Your task to perform on an android device: What's the price of the Vizio TV? Image 0: 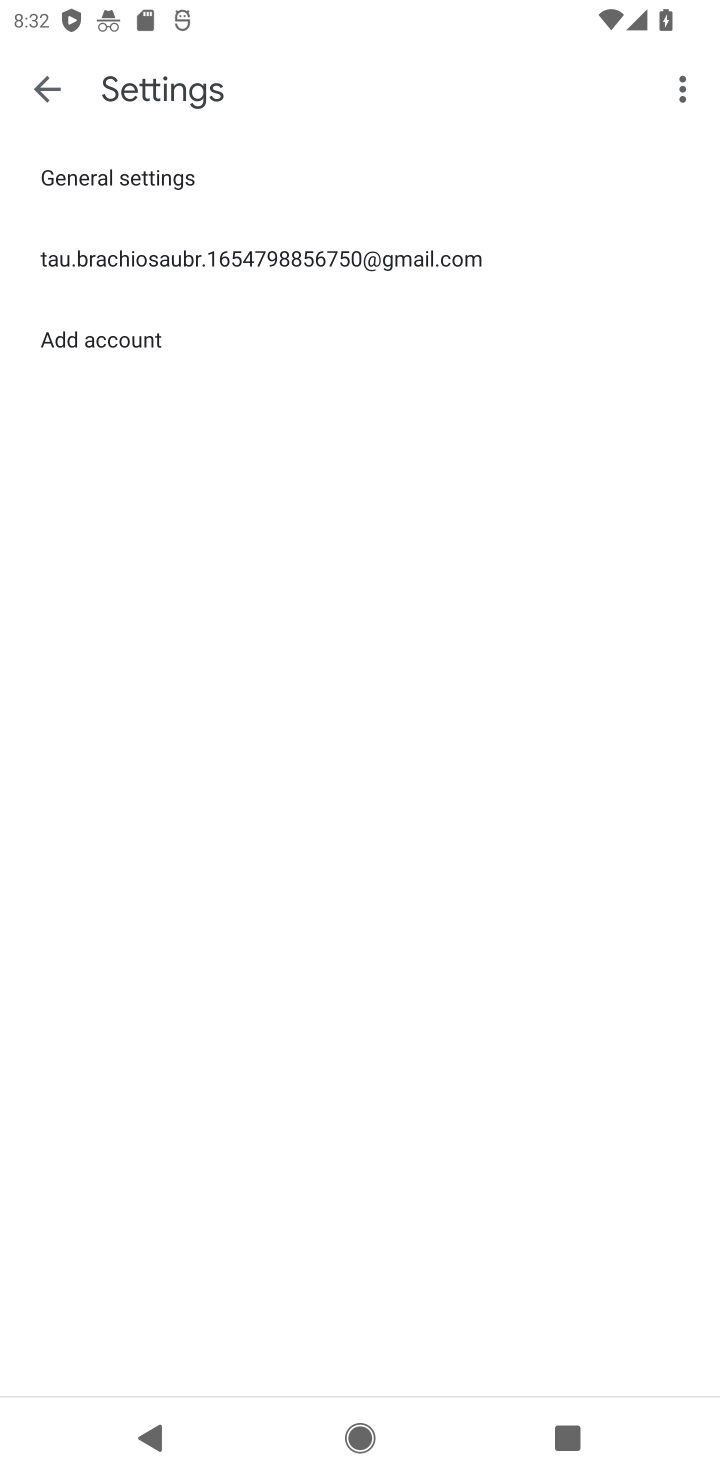
Step 0: press home button
Your task to perform on an android device: What's the price of the Vizio TV? Image 1: 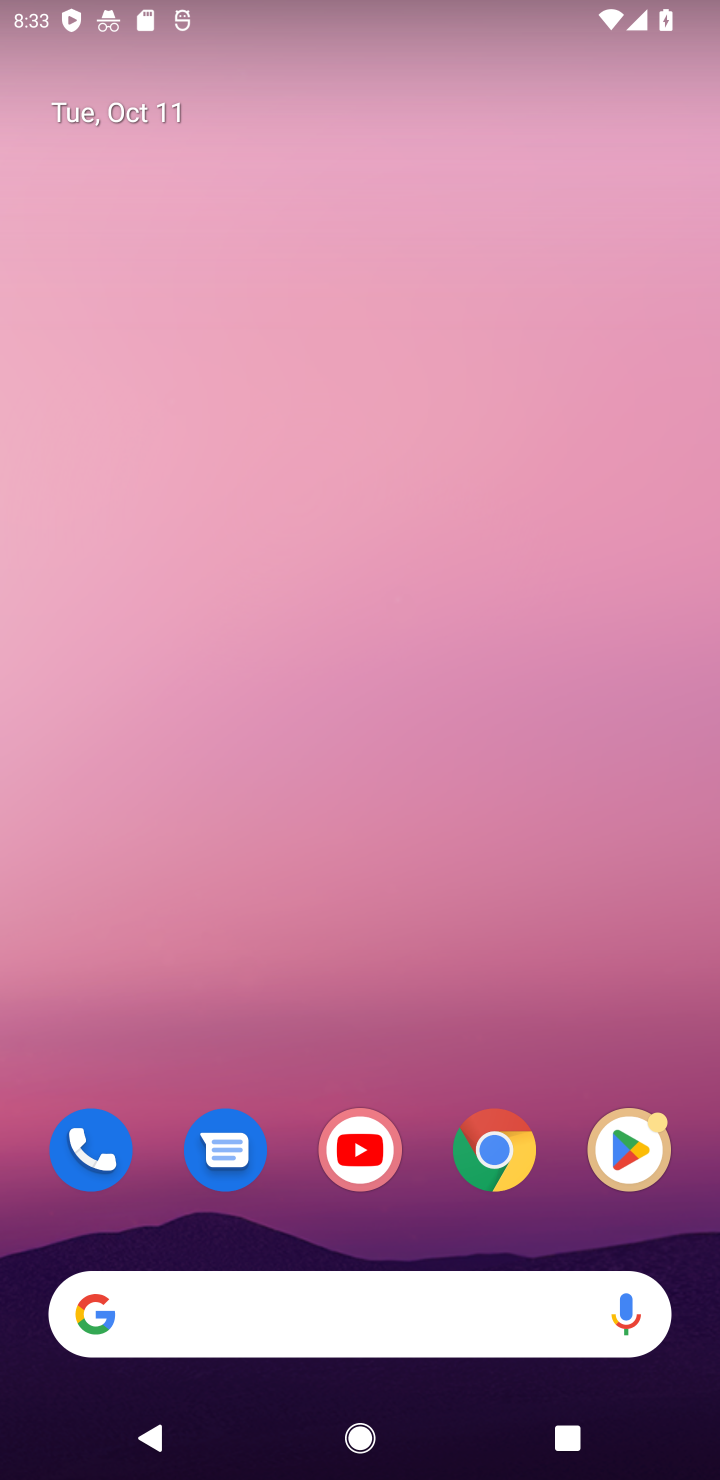
Step 1: click (487, 1163)
Your task to perform on an android device: What's the price of the Vizio TV? Image 2: 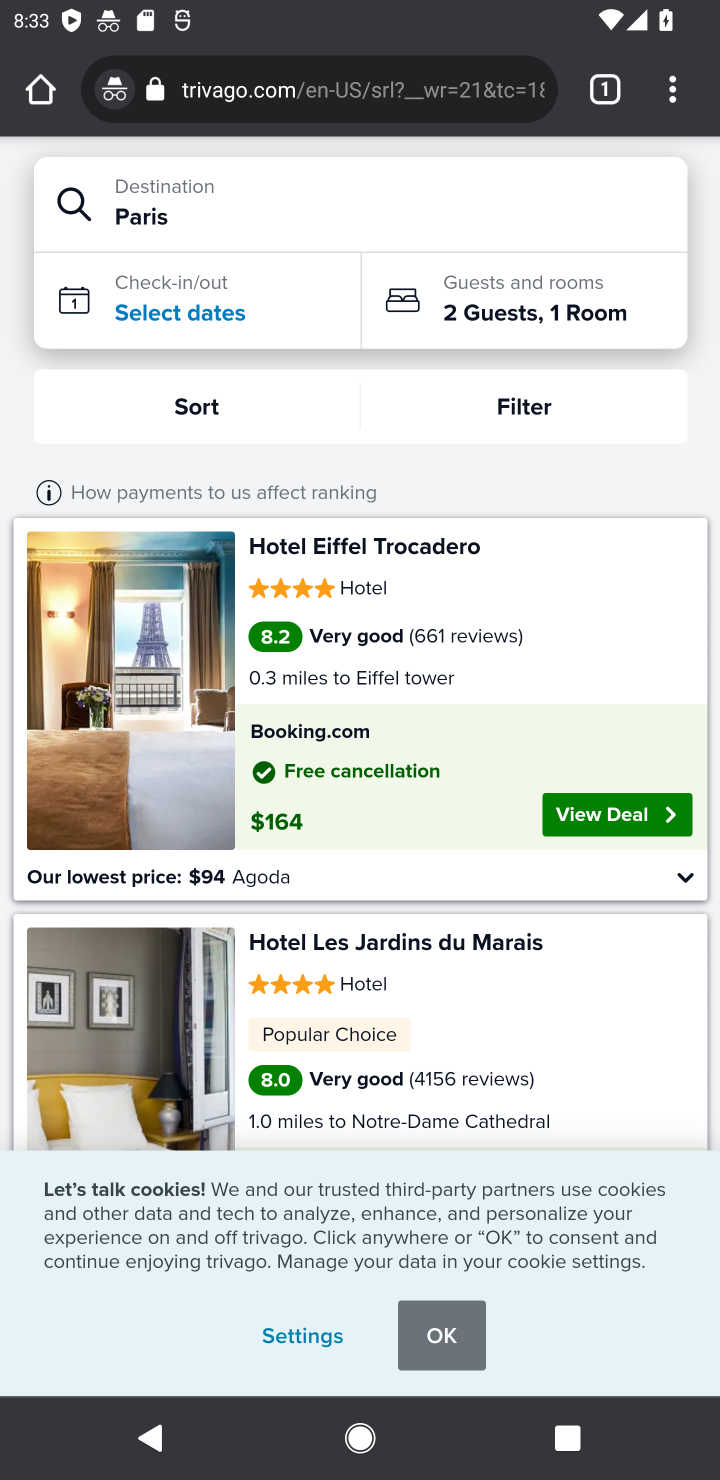
Step 2: click (293, 85)
Your task to perform on an android device: What's the price of the Vizio TV? Image 3: 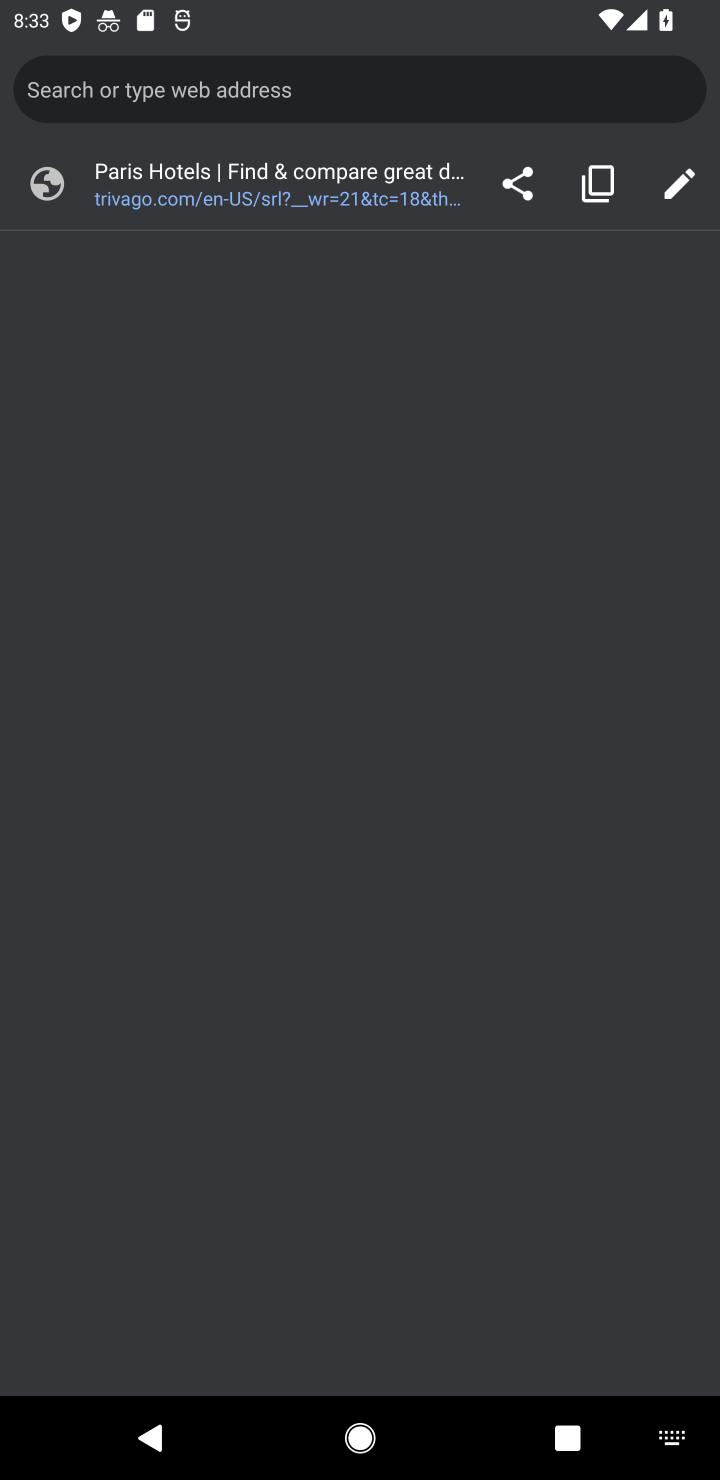
Step 3: type "price of the Vizio TV"
Your task to perform on an android device: What's the price of the Vizio TV? Image 4: 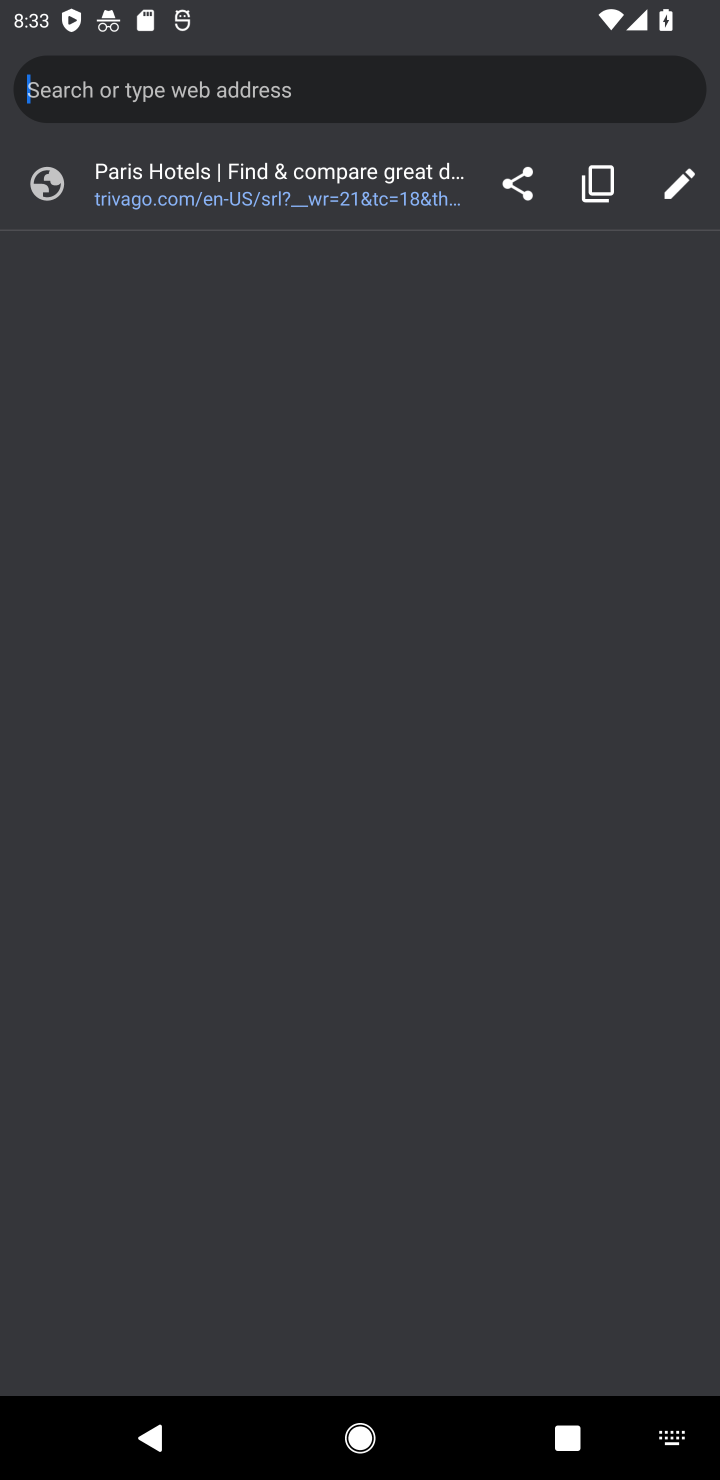
Step 4: click (85, 96)
Your task to perform on an android device: What's the price of the Vizio TV? Image 5: 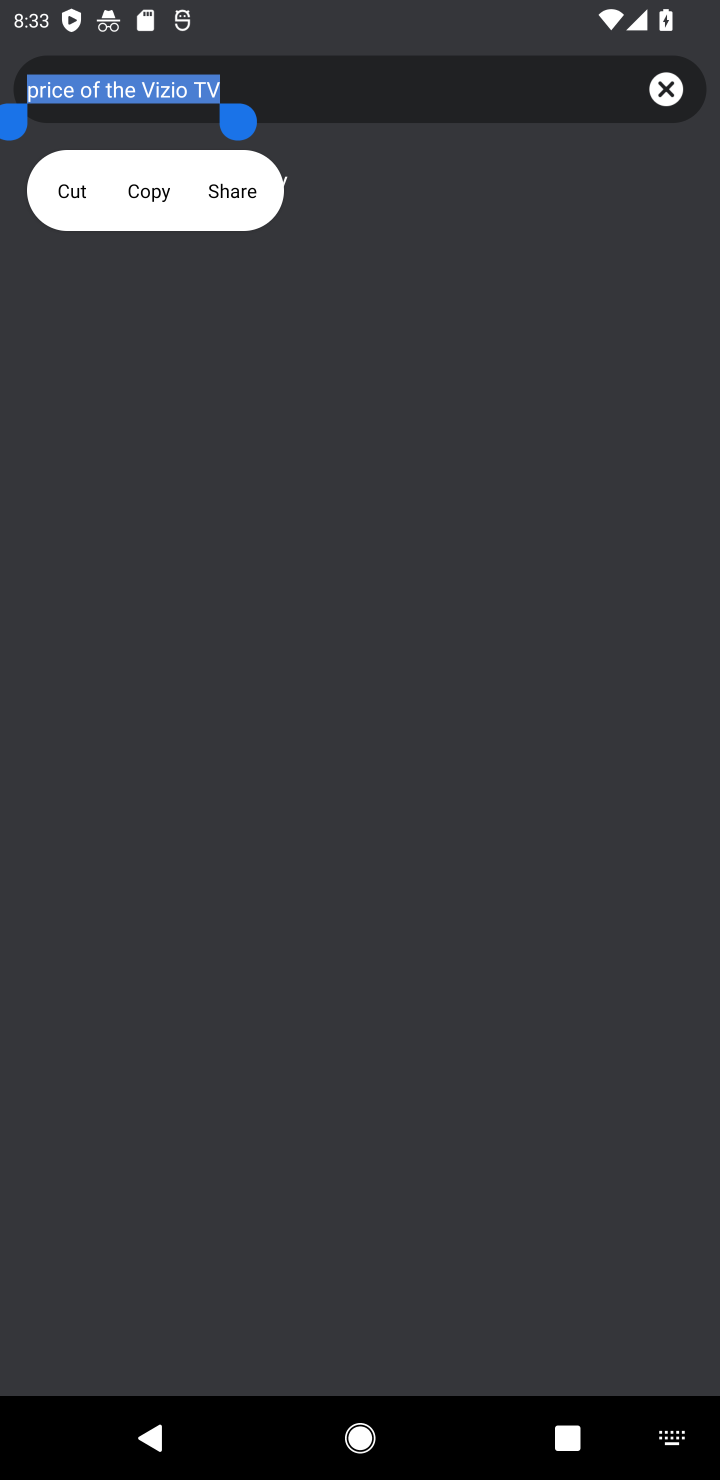
Step 5: click (407, 260)
Your task to perform on an android device: What's the price of the Vizio TV? Image 6: 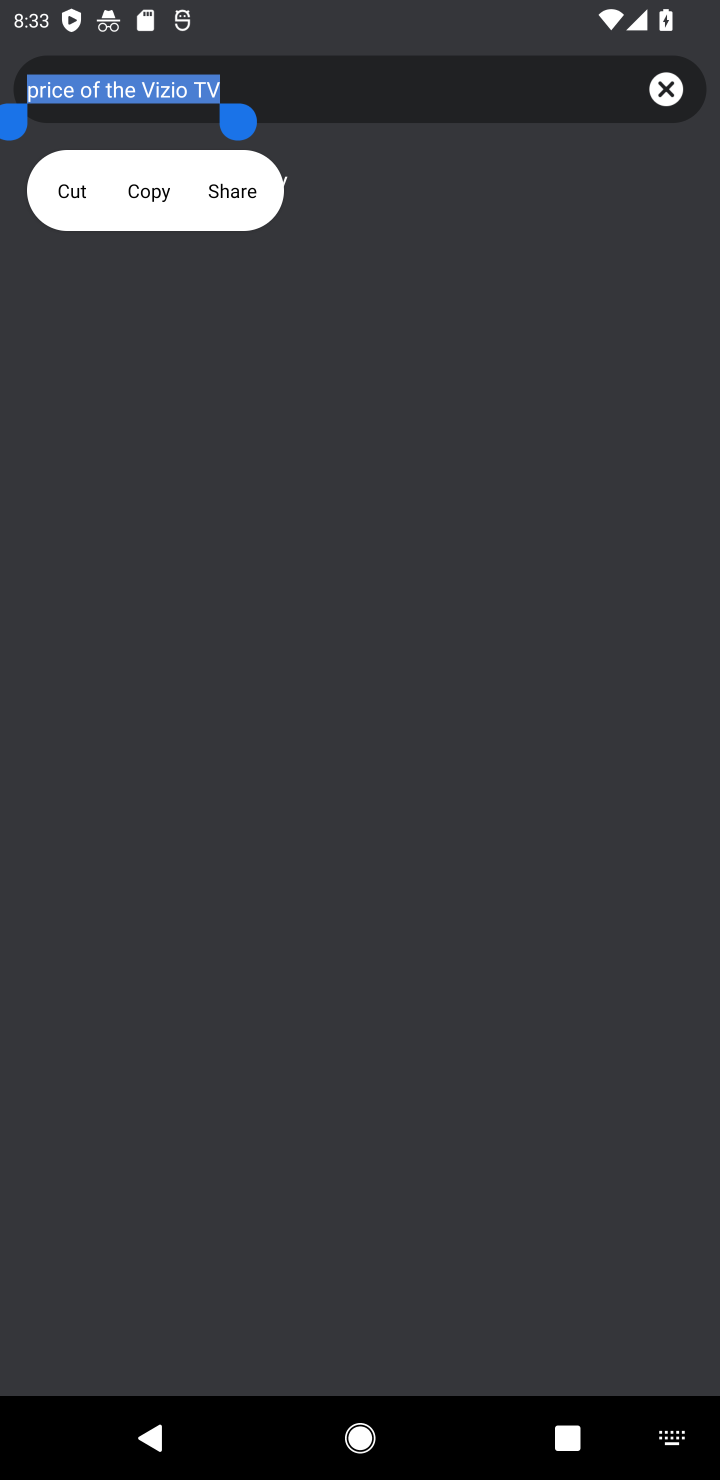
Step 6: click (365, 104)
Your task to perform on an android device: What's the price of the Vizio TV? Image 7: 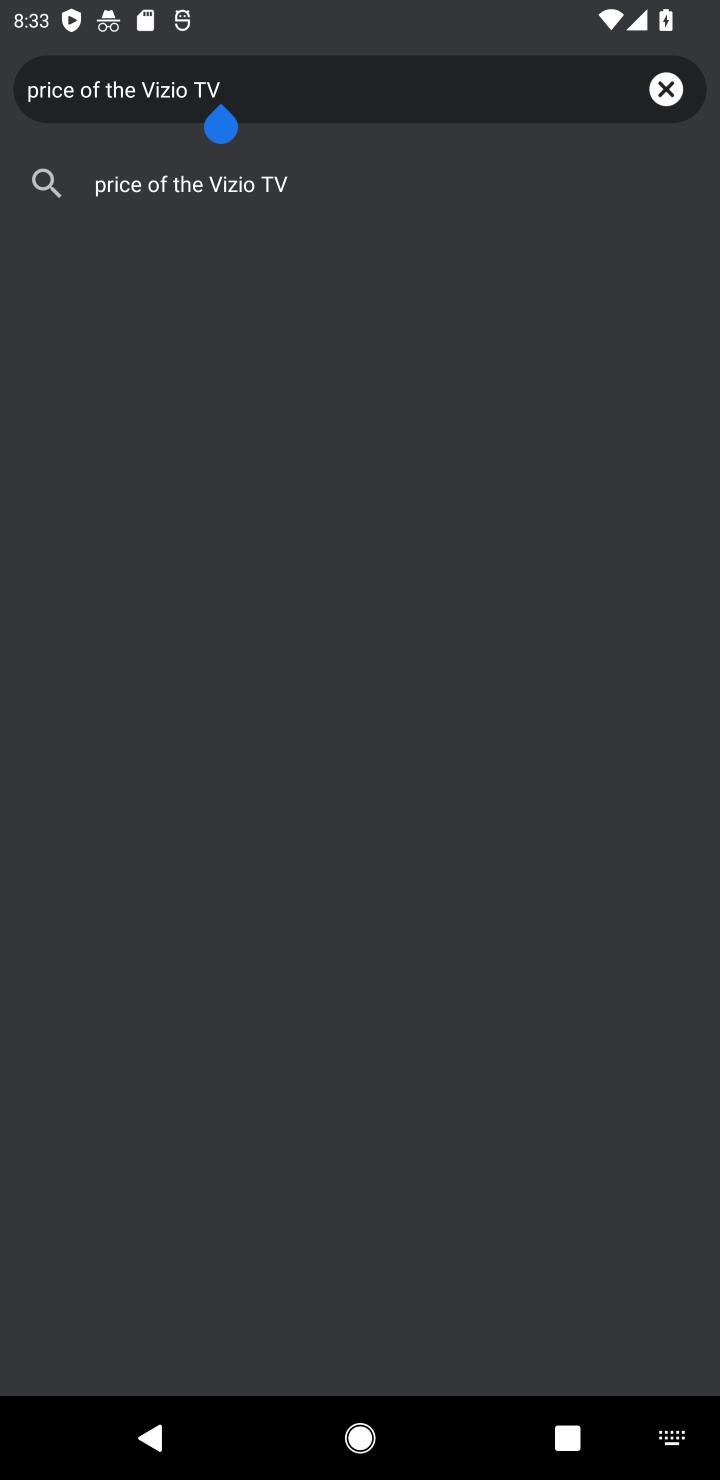
Step 7: click (211, 185)
Your task to perform on an android device: What's the price of the Vizio TV? Image 8: 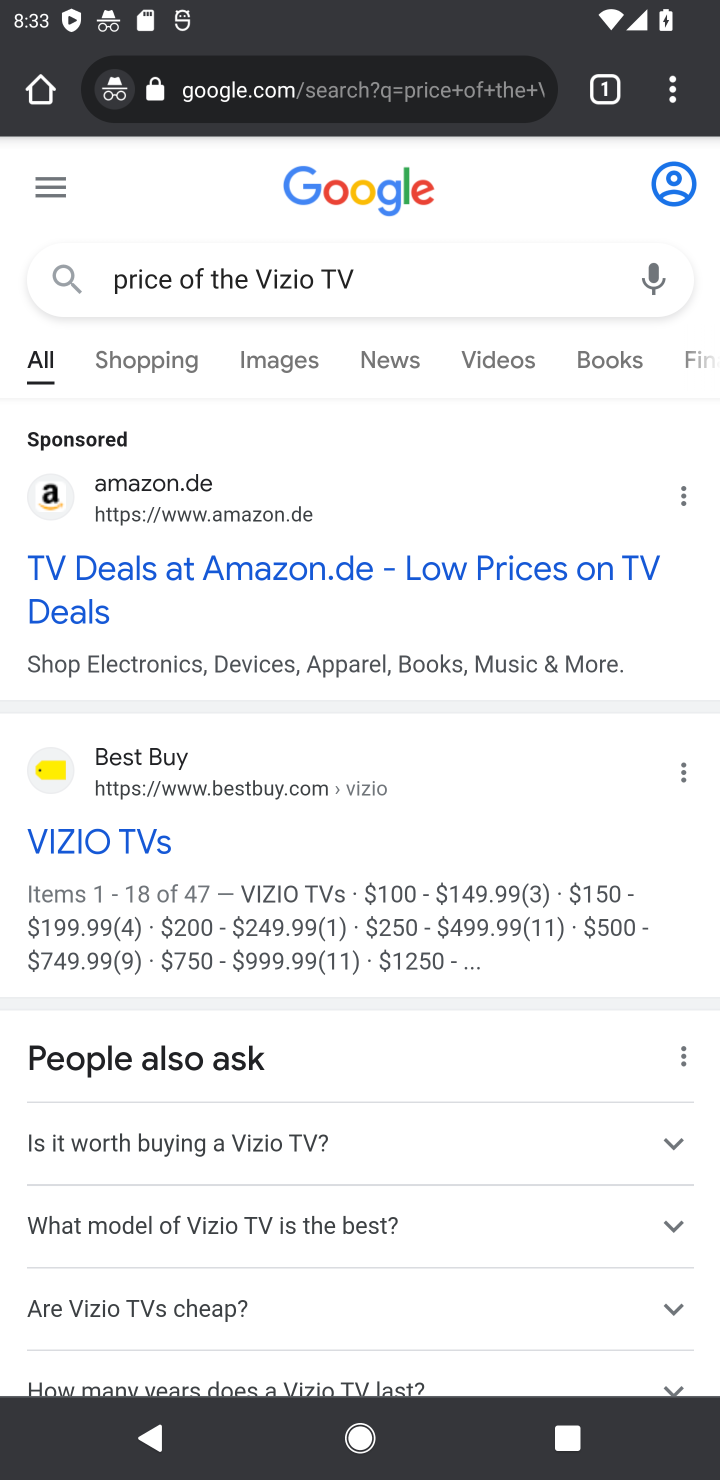
Step 8: click (177, 366)
Your task to perform on an android device: What's the price of the Vizio TV? Image 9: 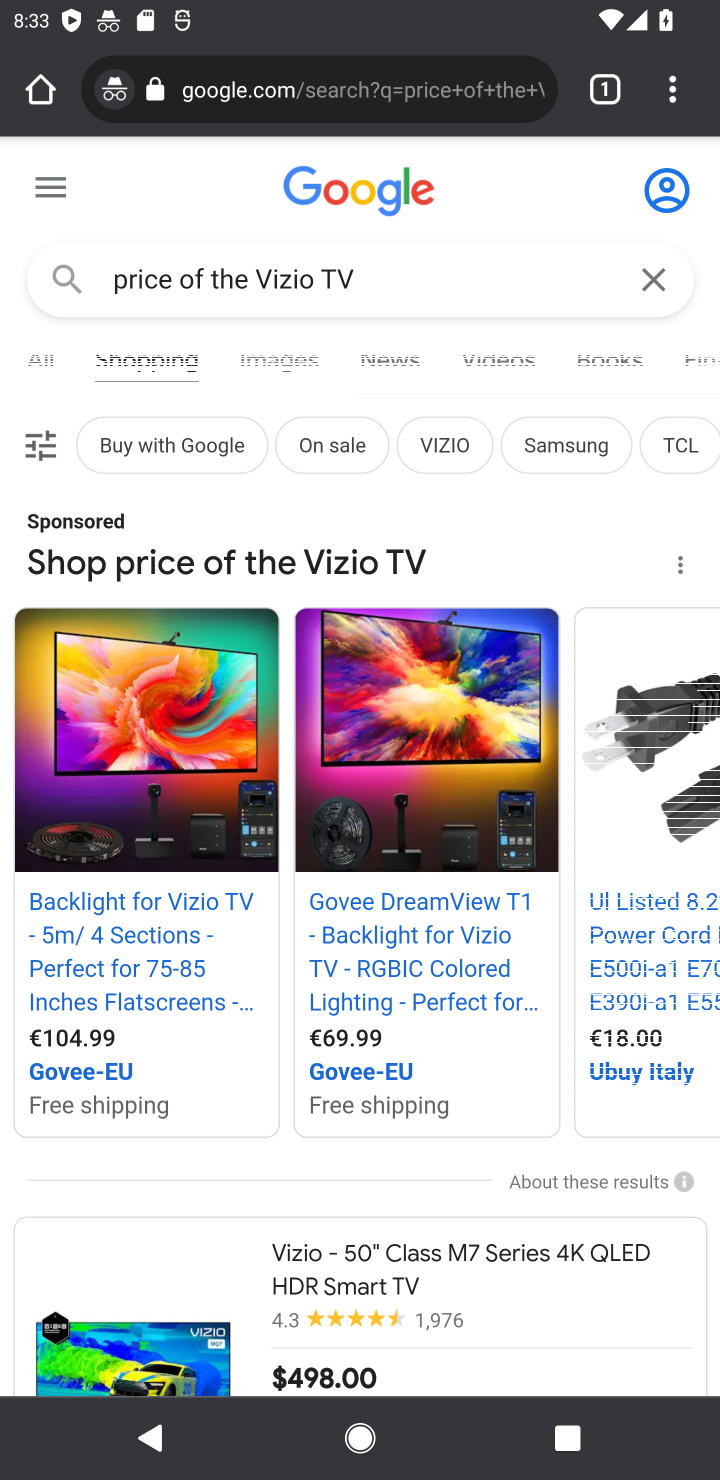
Step 9: task complete